Your task to perform on an android device: When is my next meeting? Image 0: 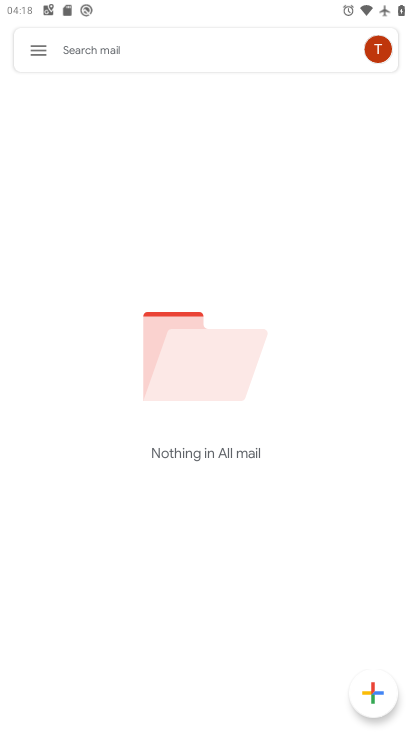
Step 0: click (304, 595)
Your task to perform on an android device: When is my next meeting? Image 1: 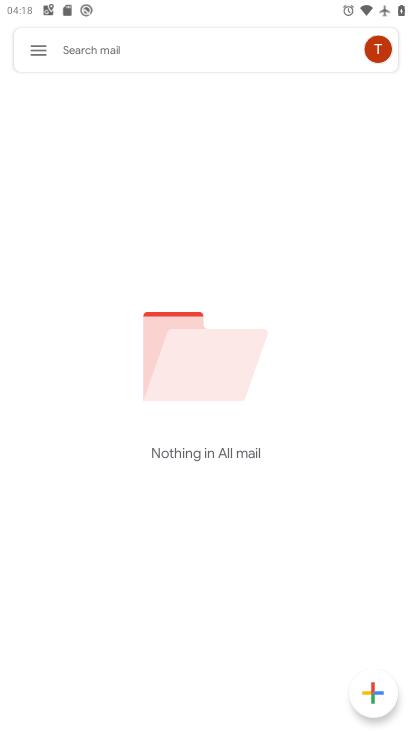
Step 1: click (304, 595)
Your task to perform on an android device: When is my next meeting? Image 2: 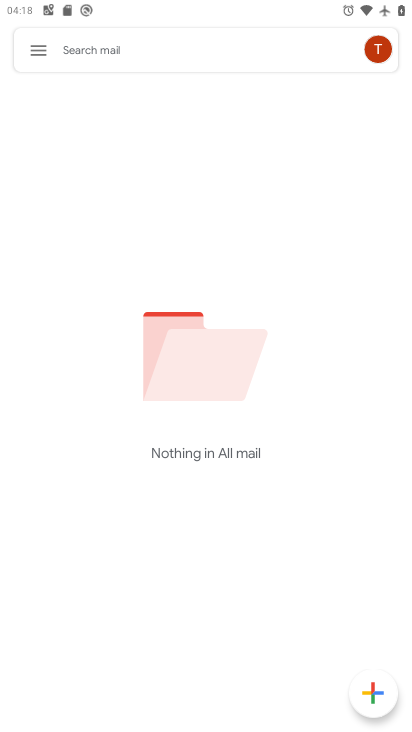
Step 2: press home button
Your task to perform on an android device: When is my next meeting? Image 3: 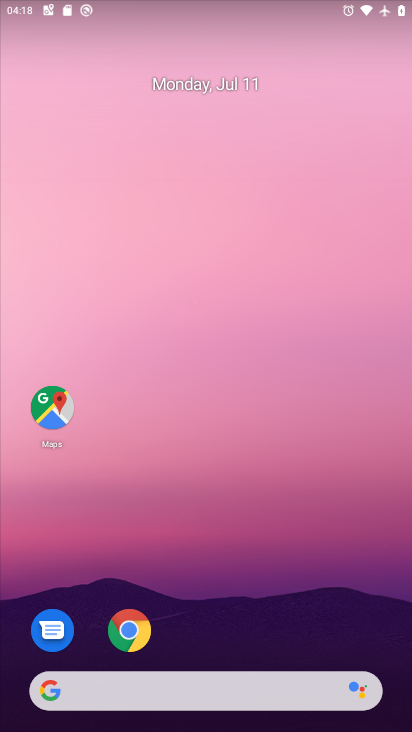
Step 3: drag from (289, 602) to (250, 91)
Your task to perform on an android device: When is my next meeting? Image 4: 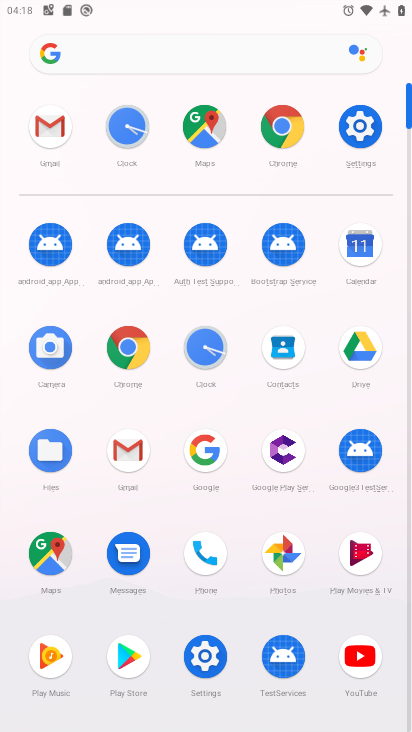
Step 4: click (367, 261)
Your task to perform on an android device: When is my next meeting? Image 5: 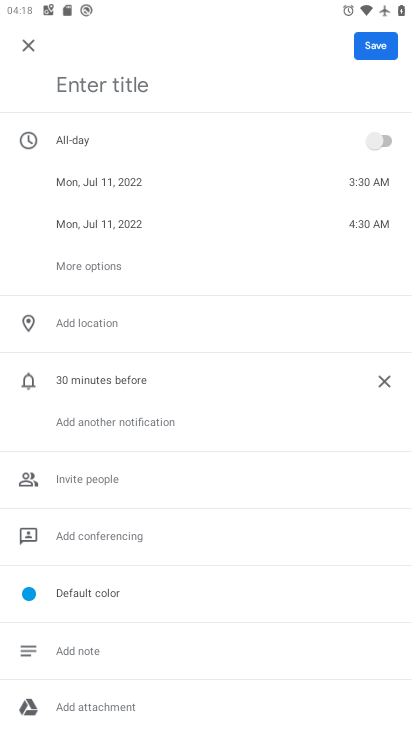
Step 5: drag from (195, 553) to (193, 198)
Your task to perform on an android device: When is my next meeting? Image 6: 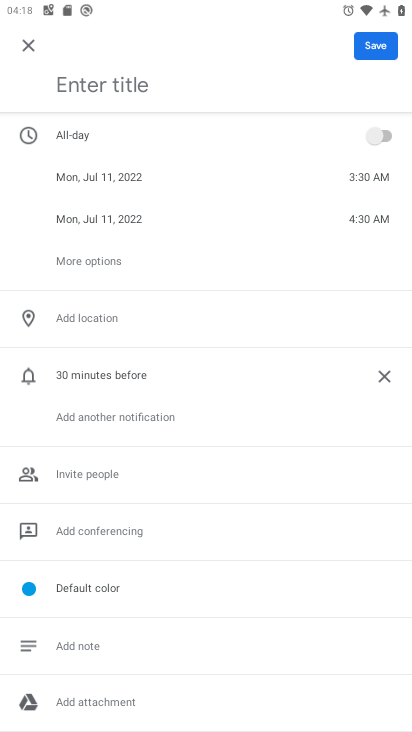
Step 6: click (36, 59)
Your task to perform on an android device: When is my next meeting? Image 7: 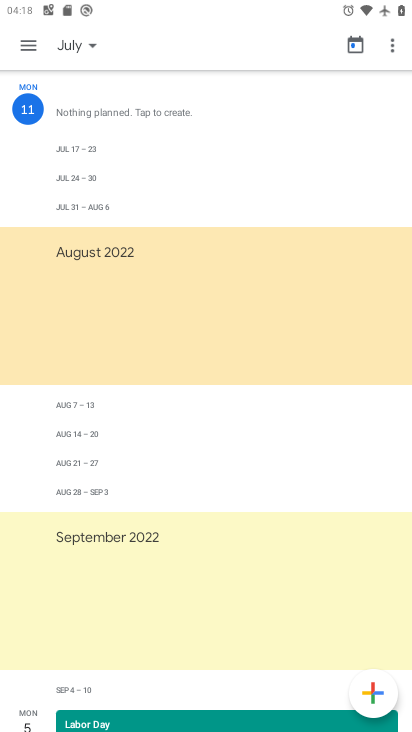
Step 7: task complete